Your task to perform on an android device: turn off wifi Image 0: 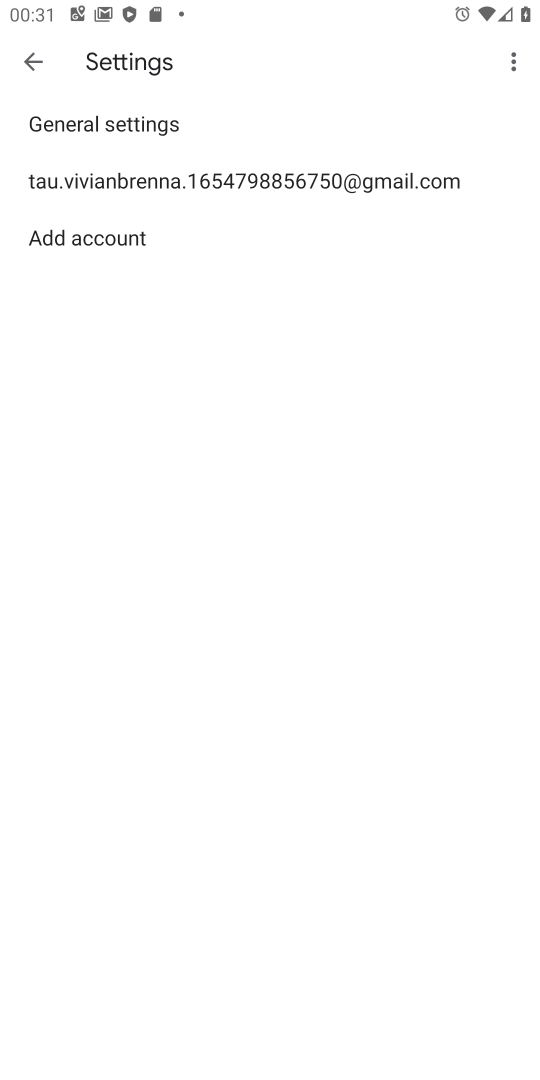
Step 0: press home button
Your task to perform on an android device: turn off wifi Image 1: 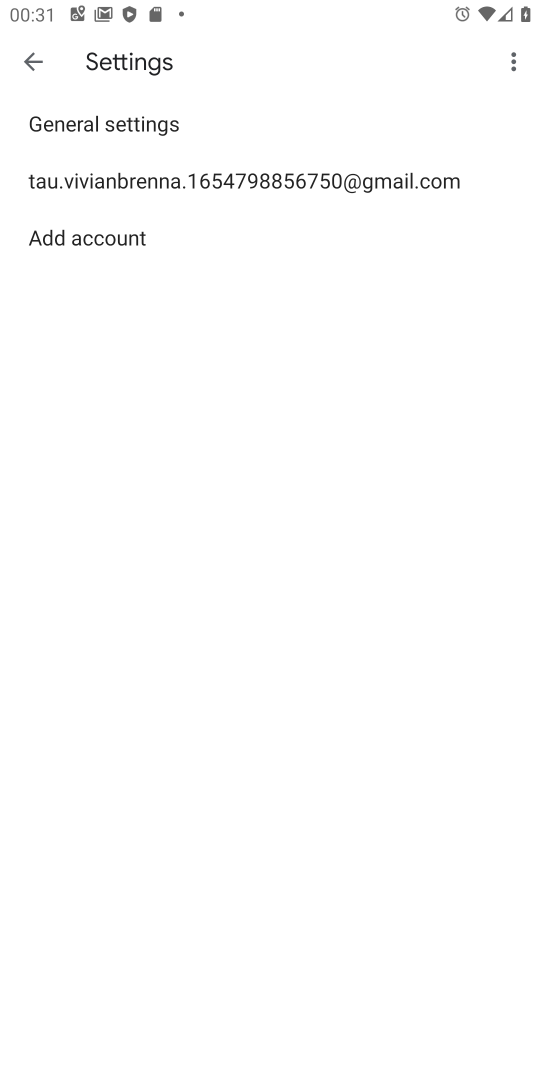
Step 1: press home button
Your task to perform on an android device: turn off wifi Image 2: 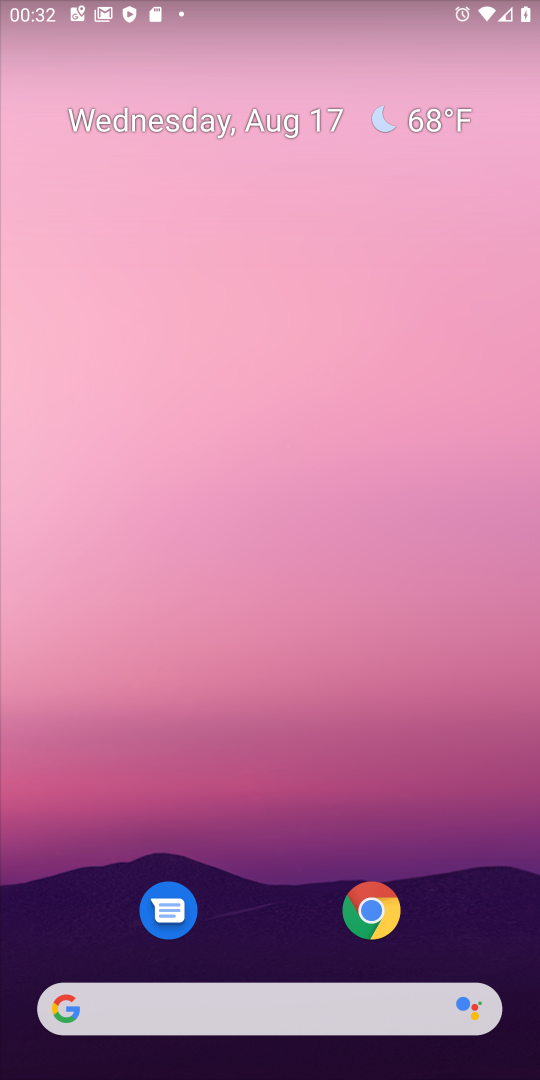
Step 2: drag from (339, 560) to (17, 563)
Your task to perform on an android device: turn off wifi Image 3: 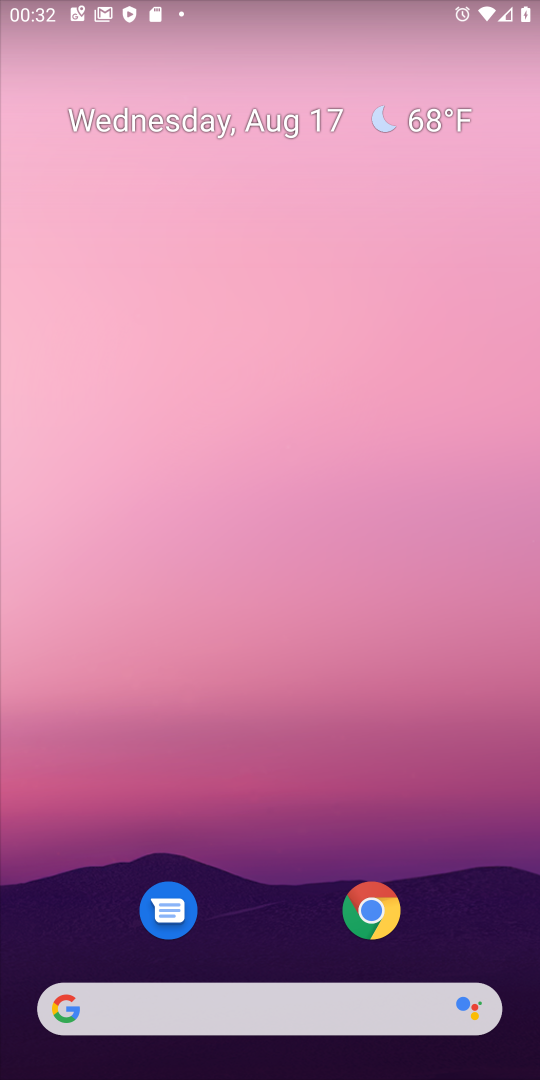
Step 3: drag from (251, 879) to (254, 17)
Your task to perform on an android device: turn off wifi Image 4: 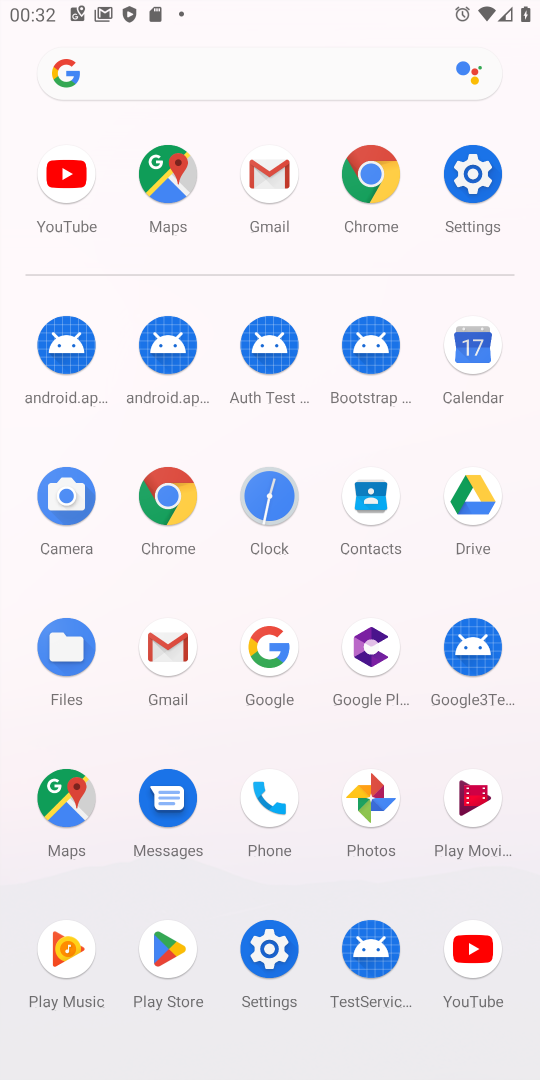
Step 4: click (471, 178)
Your task to perform on an android device: turn off wifi Image 5: 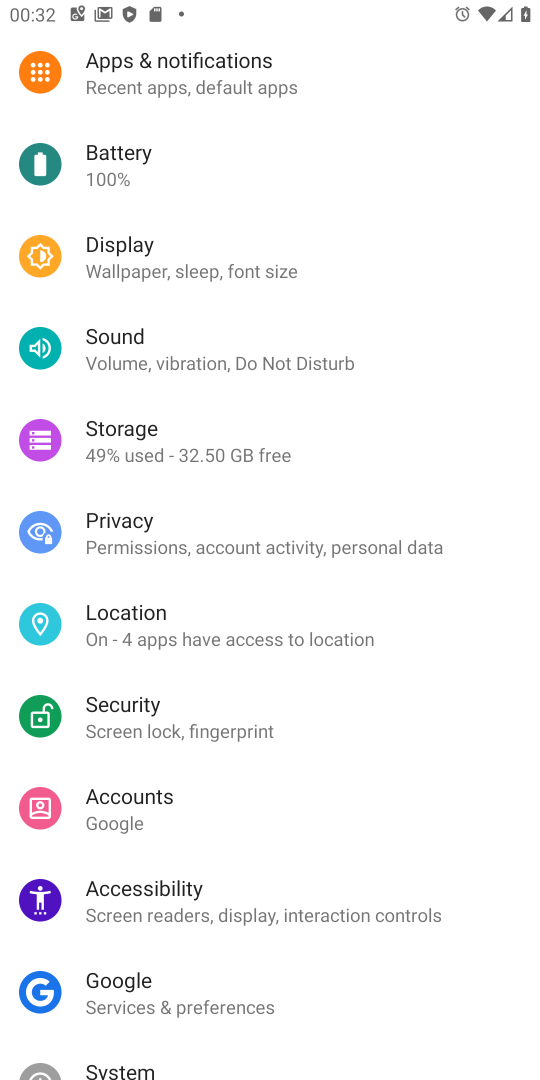
Step 5: click (272, 257)
Your task to perform on an android device: turn off wifi Image 6: 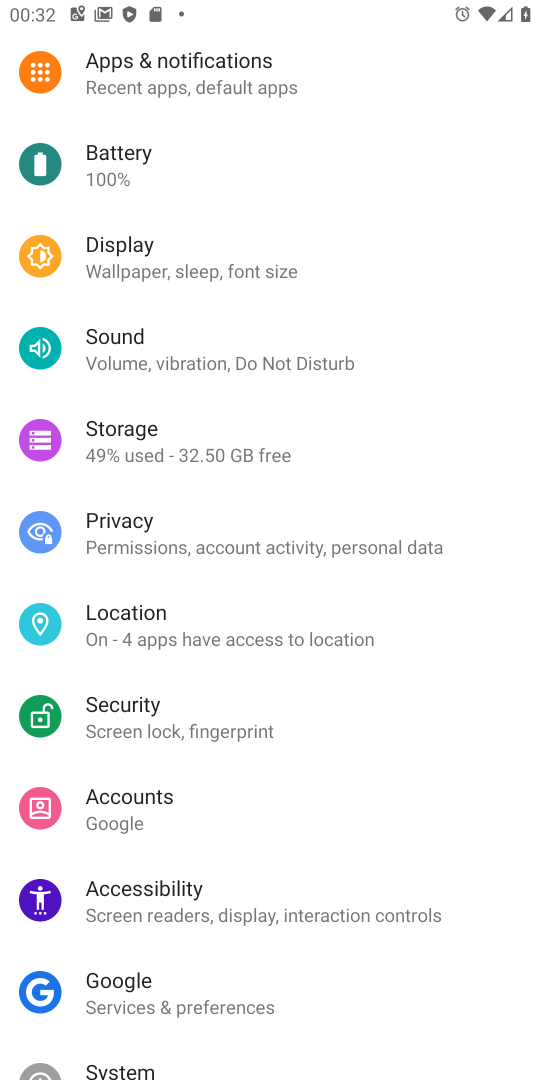
Step 6: drag from (307, 153) to (345, 865)
Your task to perform on an android device: turn off wifi Image 7: 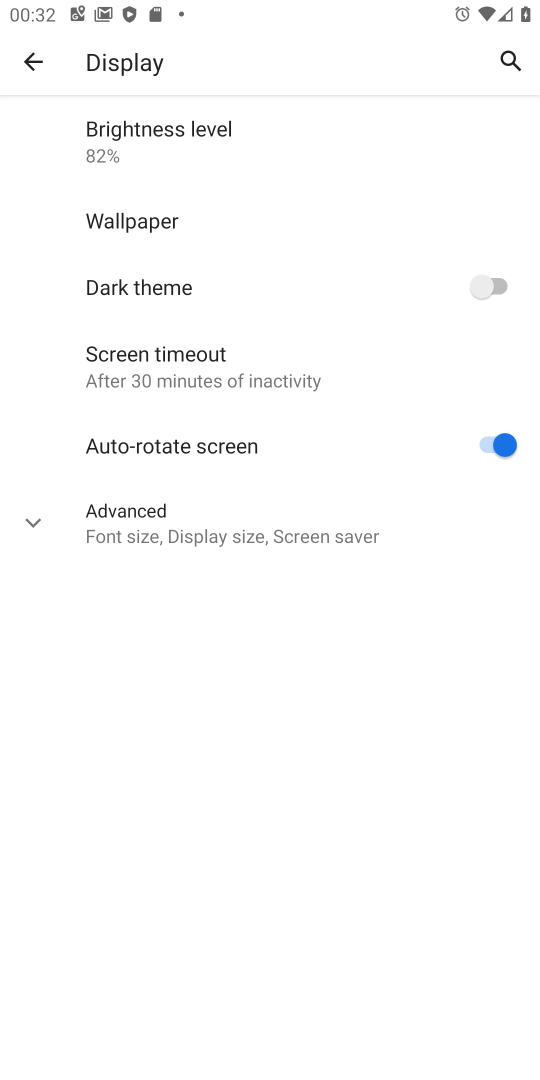
Step 7: press back button
Your task to perform on an android device: turn off wifi Image 8: 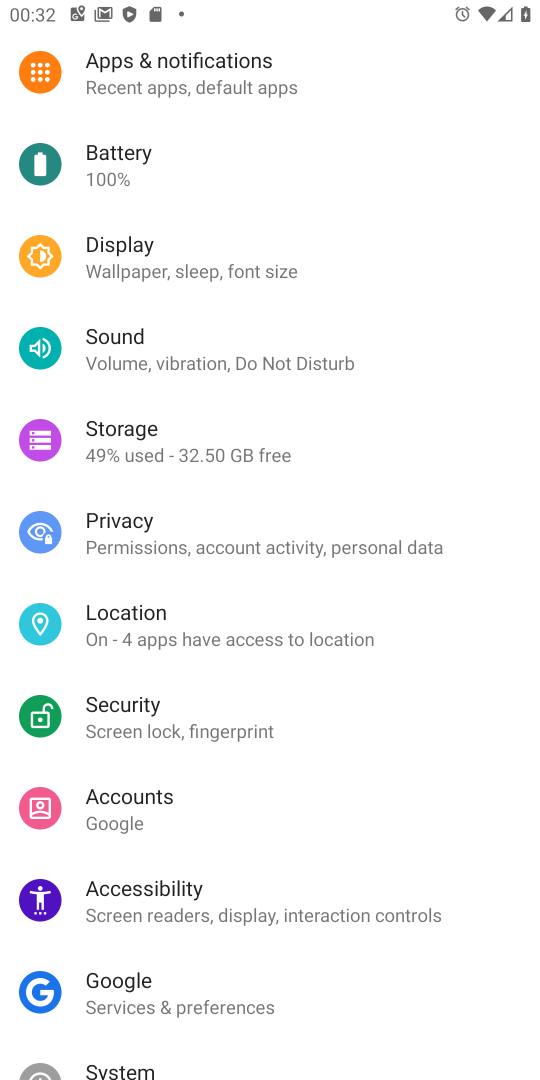
Step 8: drag from (266, 123) to (264, 1078)
Your task to perform on an android device: turn off wifi Image 9: 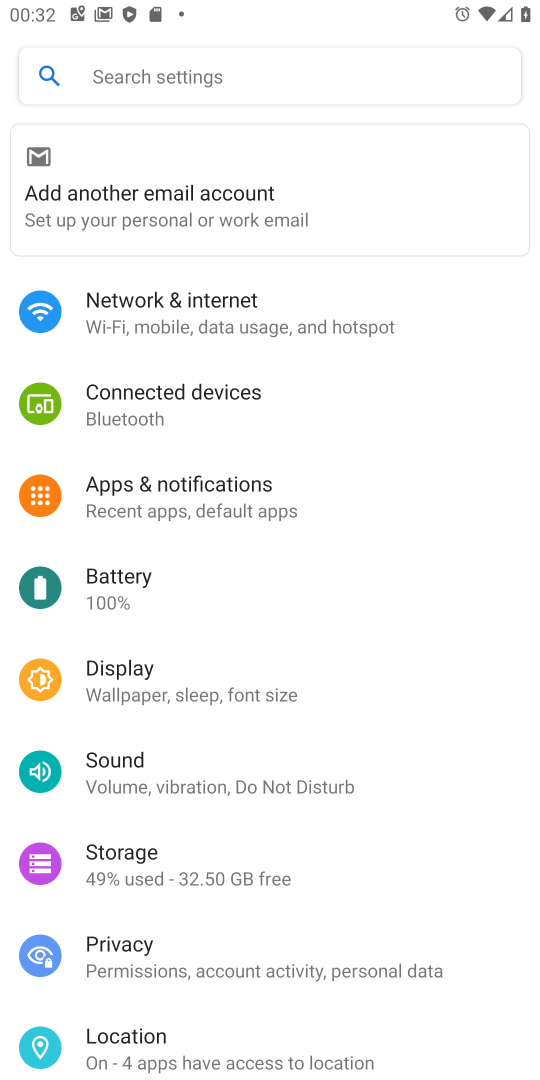
Step 9: click (156, 304)
Your task to perform on an android device: turn off wifi Image 10: 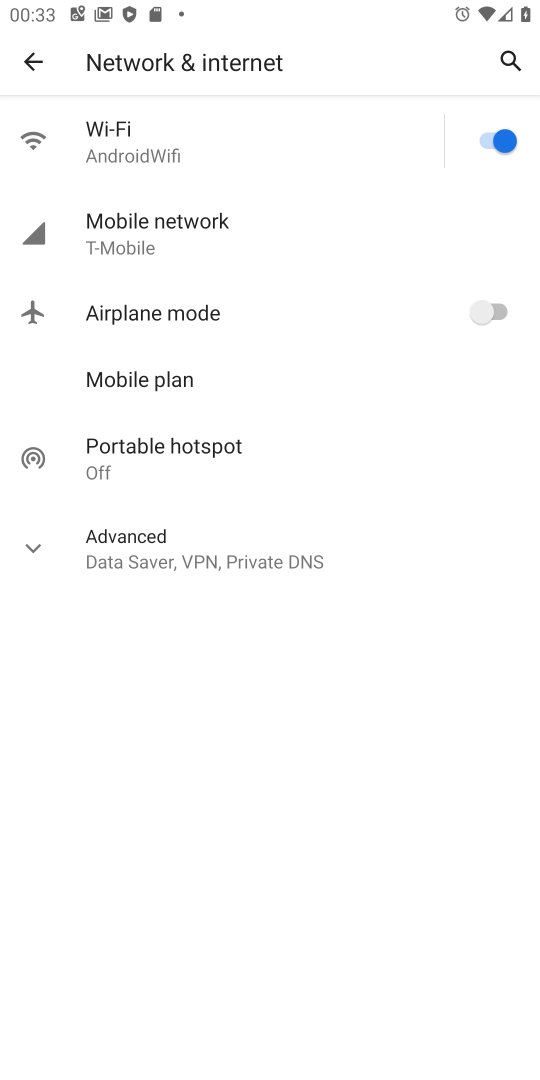
Step 10: click (478, 141)
Your task to perform on an android device: turn off wifi Image 11: 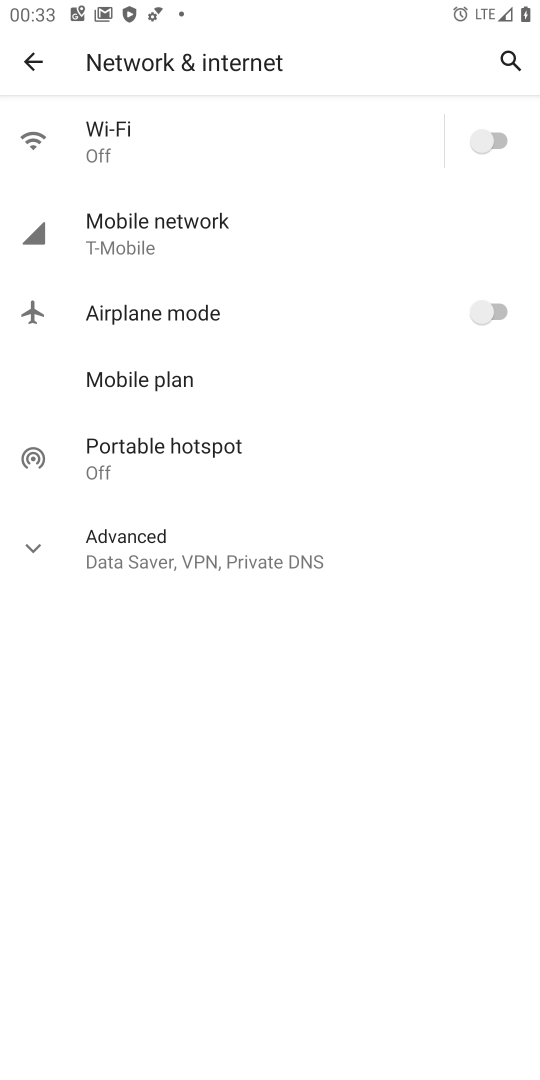
Step 11: task complete